Your task to perform on an android device: change the clock display to digital Image 0: 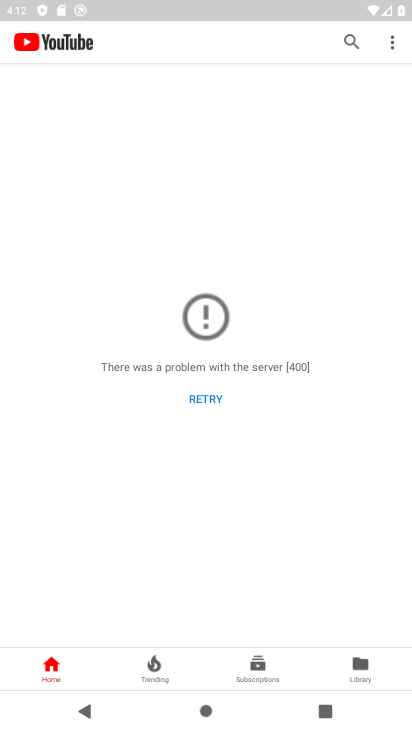
Step 0: press home button
Your task to perform on an android device: change the clock display to digital Image 1: 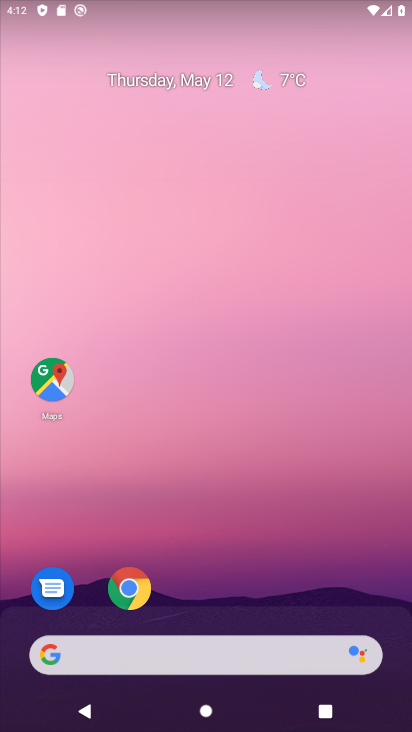
Step 1: drag from (314, 560) to (329, 110)
Your task to perform on an android device: change the clock display to digital Image 2: 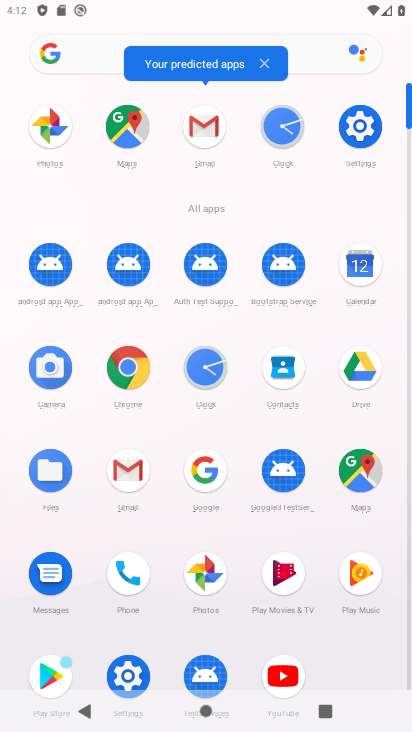
Step 2: click (288, 131)
Your task to perform on an android device: change the clock display to digital Image 3: 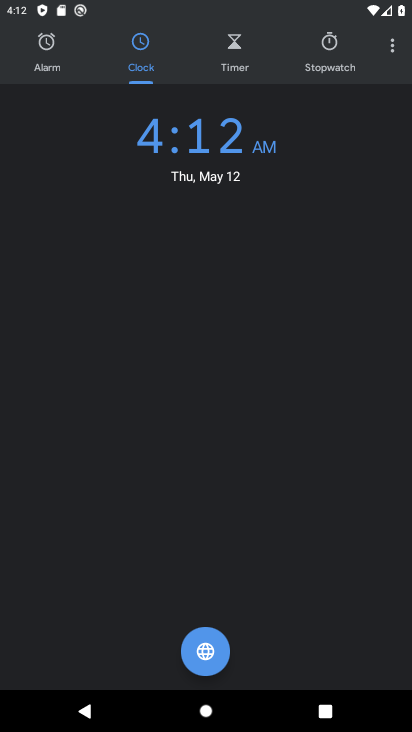
Step 3: click (390, 52)
Your task to perform on an android device: change the clock display to digital Image 4: 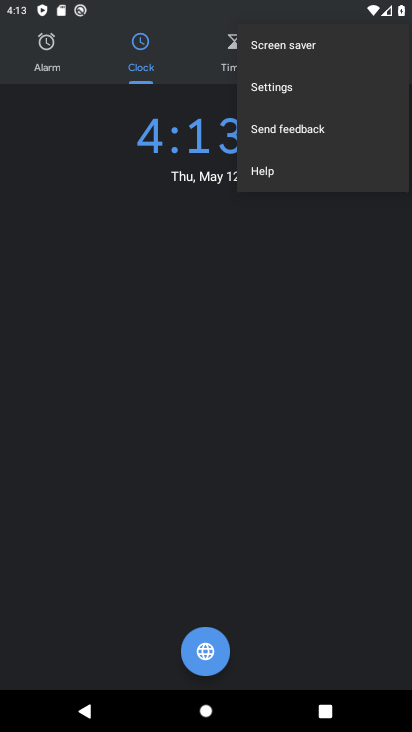
Step 4: click (283, 95)
Your task to perform on an android device: change the clock display to digital Image 5: 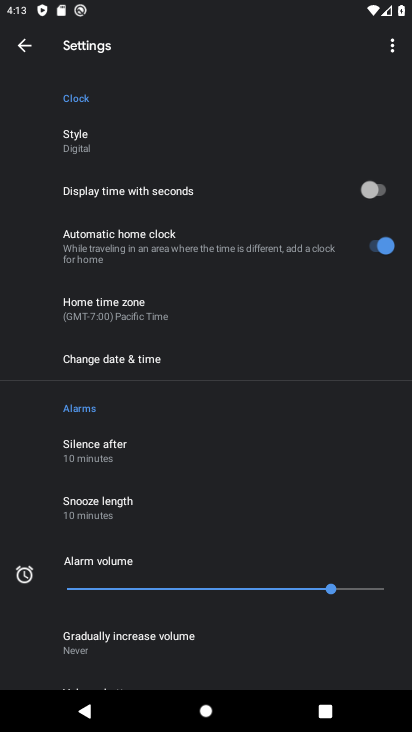
Step 5: click (81, 152)
Your task to perform on an android device: change the clock display to digital Image 6: 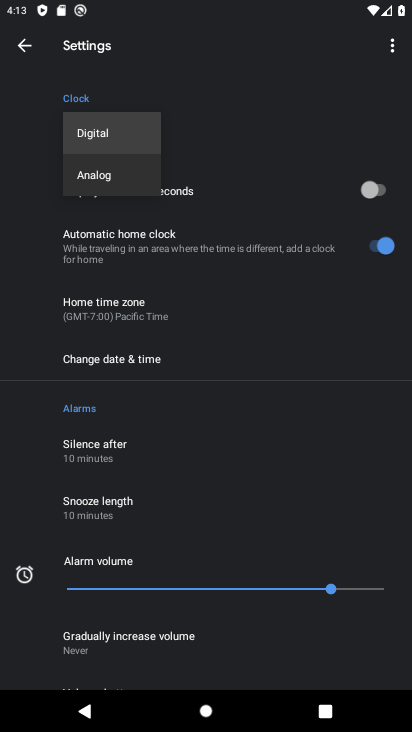
Step 6: click (113, 128)
Your task to perform on an android device: change the clock display to digital Image 7: 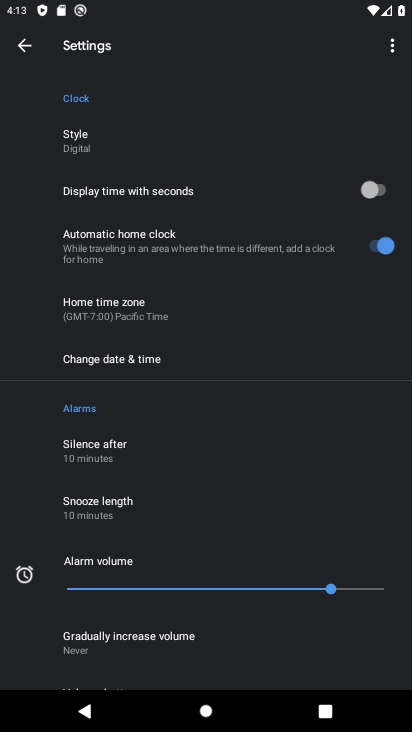
Step 7: task complete